Your task to perform on an android device: all mails in gmail Image 0: 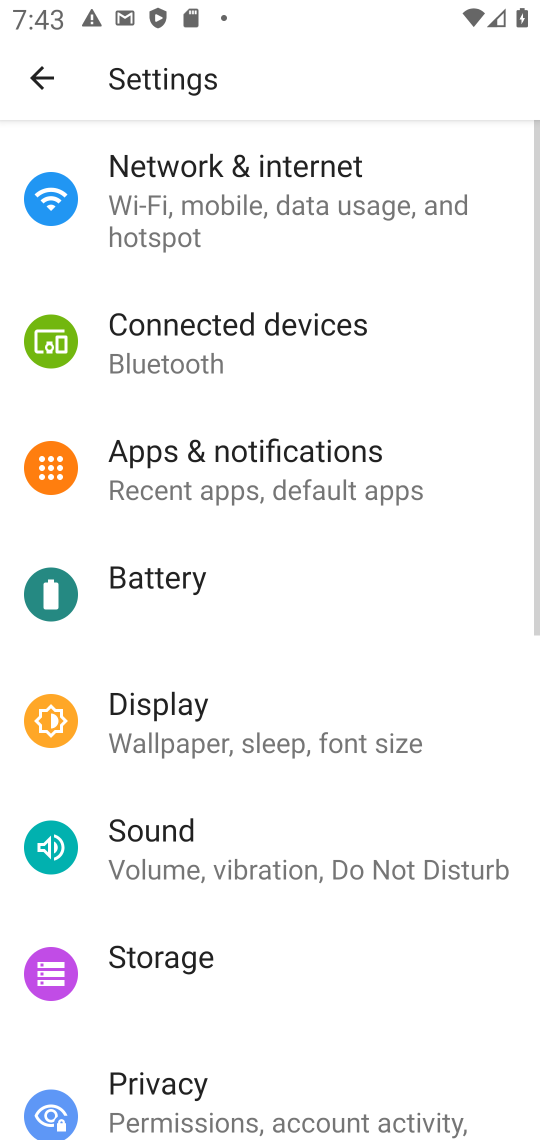
Step 0: press home button
Your task to perform on an android device: all mails in gmail Image 1: 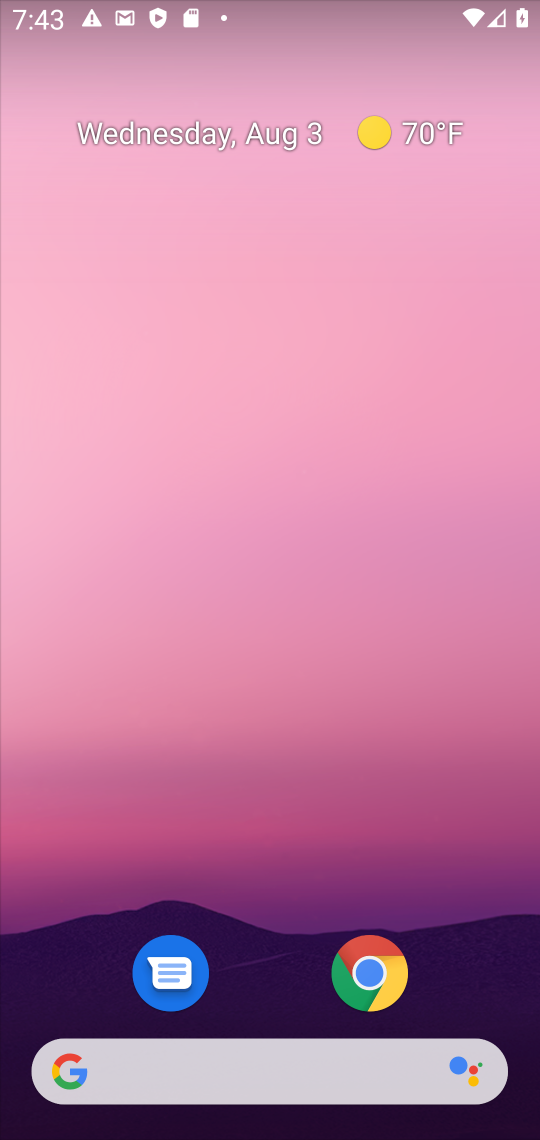
Step 1: drag from (283, 1003) to (395, 80)
Your task to perform on an android device: all mails in gmail Image 2: 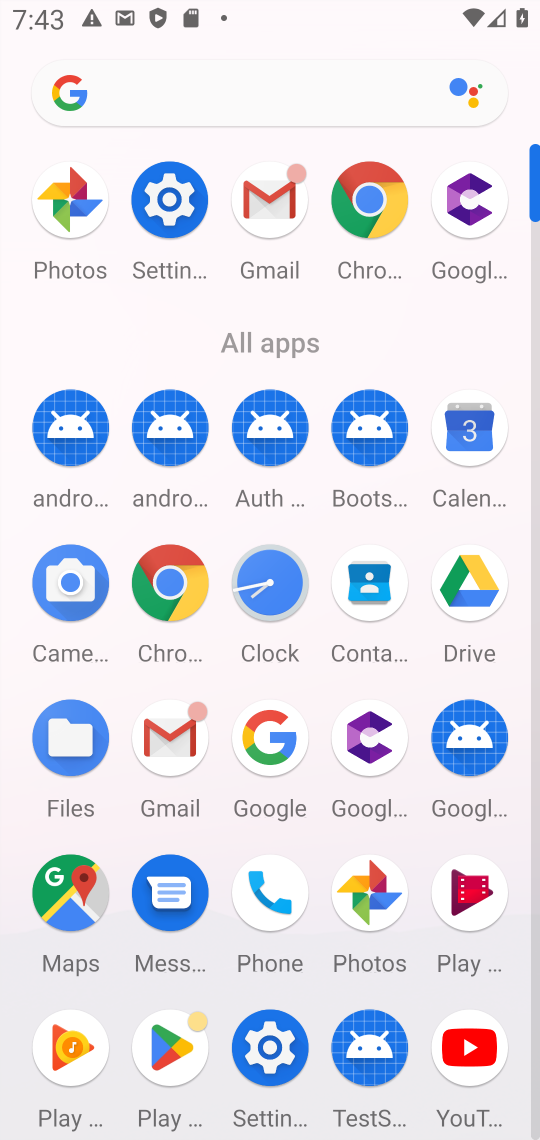
Step 2: click (167, 721)
Your task to perform on an android device: all mails in gmail Image 3: 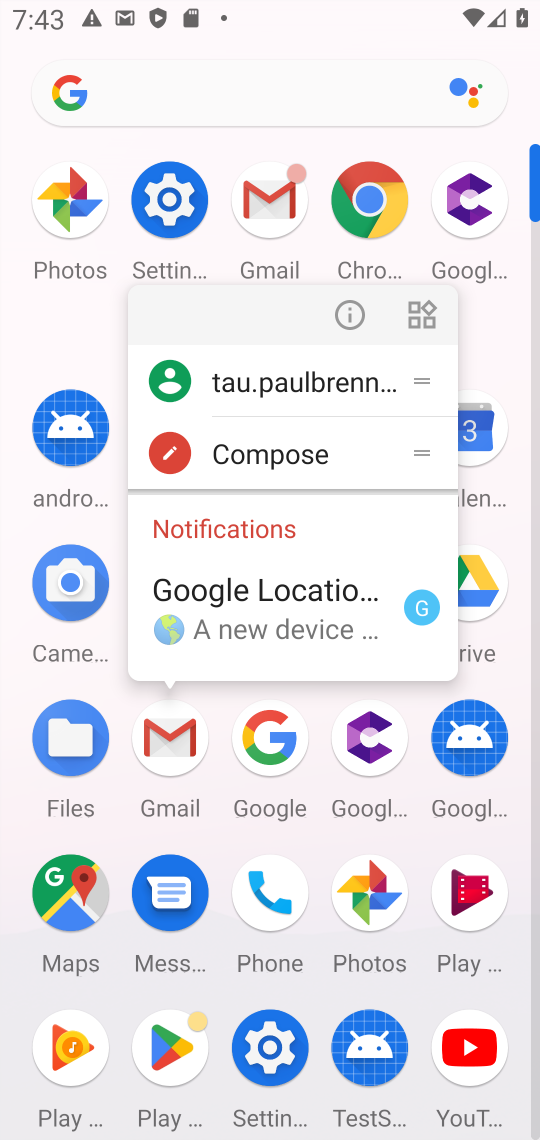
Step 3: click (167, 721)
Your task to perform on an android device: all mails in gmail Image 4: 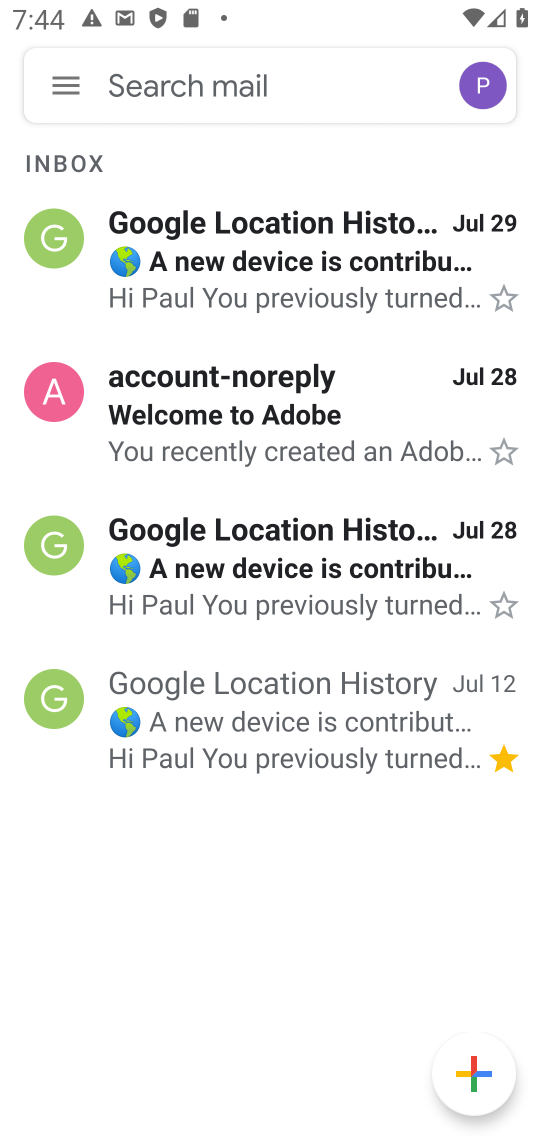
Step 4: click (58, 82)
Your task to perform on an android device: all mails in gmail Image 5: 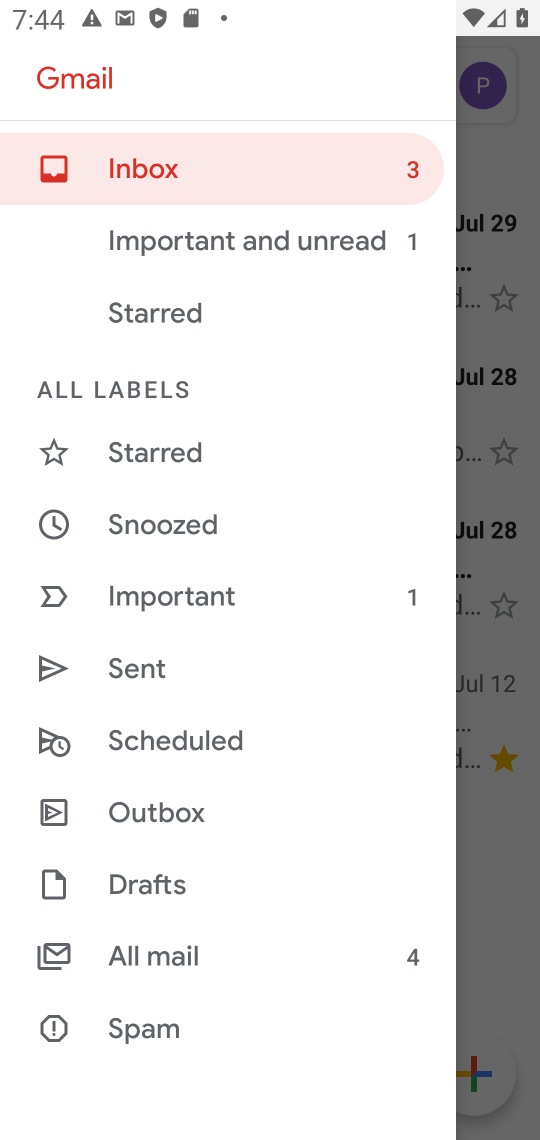
Step 5: click (206, 950)
Your task to perform on an android device: all mails in gmail Image 6: 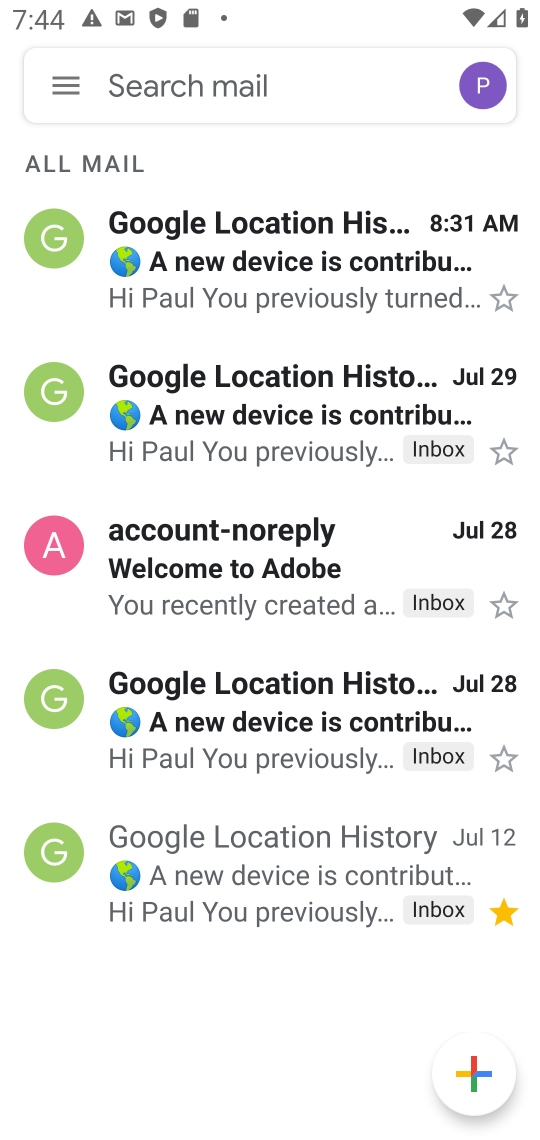
Step 6: task complete